Your task to perform on an android device: check data usage Image 0: 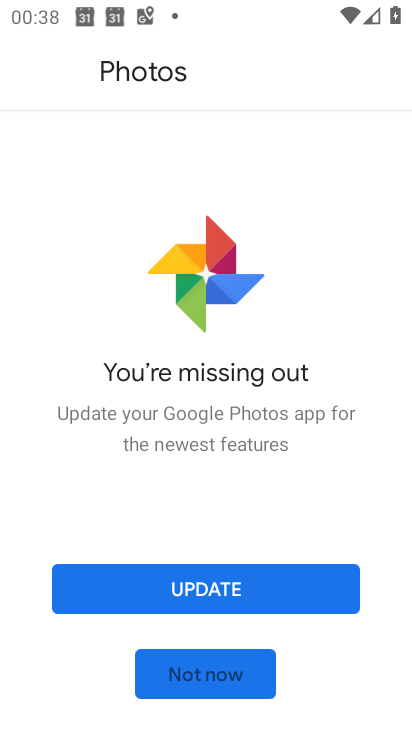
Step 0: press home button
Your task to perform on an android device: check data usage Image 1: 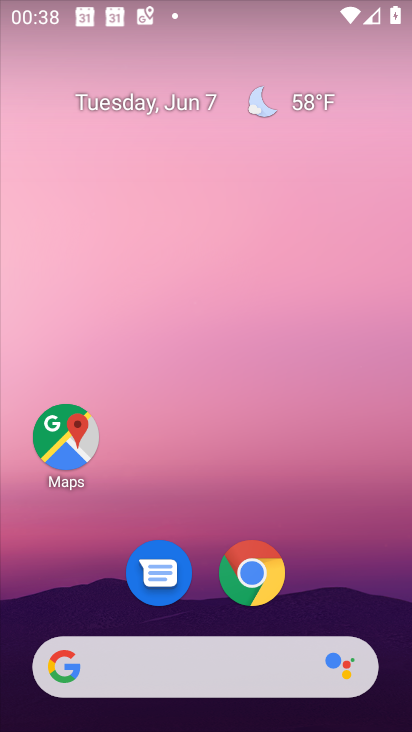
Step 1: drag from (359, 4) to (256, 728)
Your task to perform on an android device: check data usage Image 2: 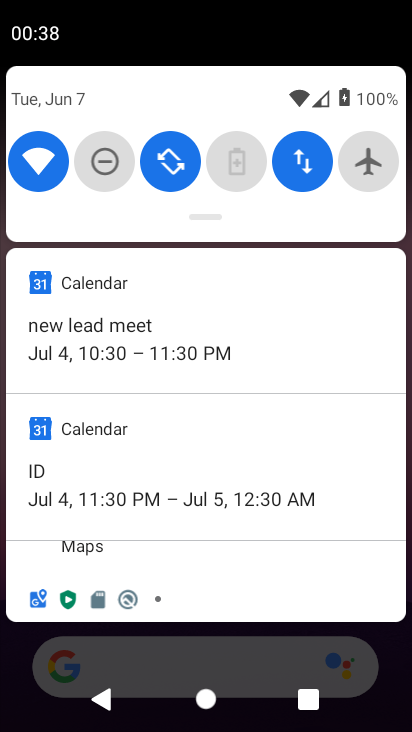
Step 2: drag from (228, 210) to (228, 597)
Your task to perform on an android device: check data usage Image 3: 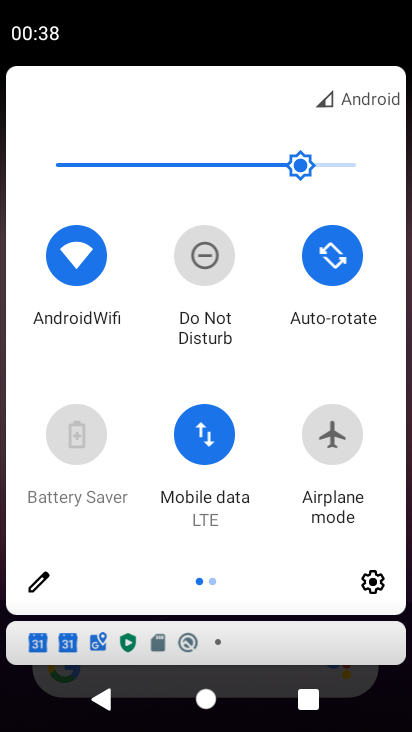
Step 3: click (183, 453)
Your task to perform on an android device: check data usage Image 4: 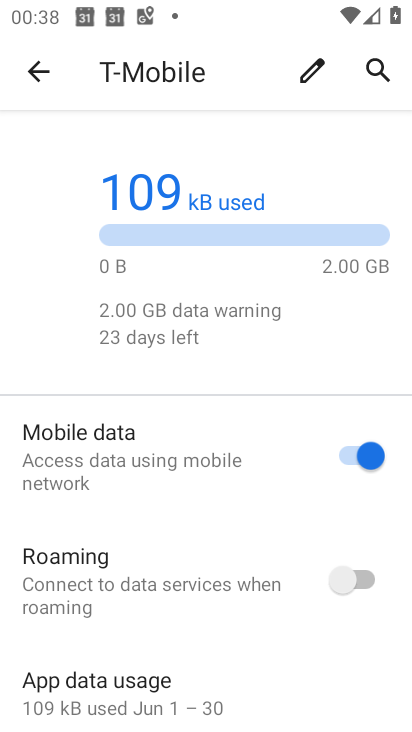
Step 4: task complete